Your task to perform on an android device: empty trash in the gmail app Image 0: 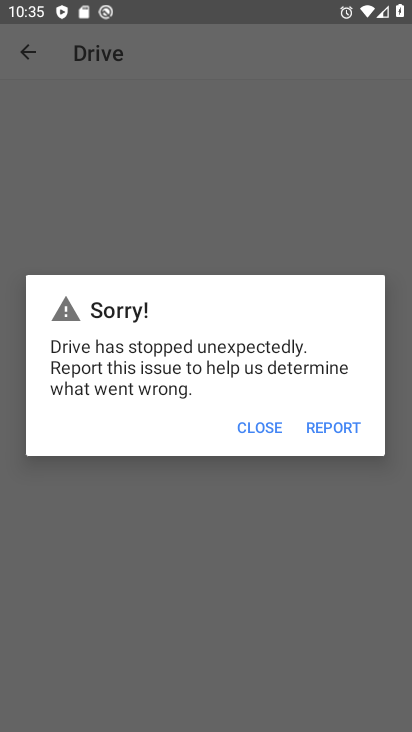
Step 0: press home button
Your task to perform on an android device: empty trash in the gmail app Image 1: 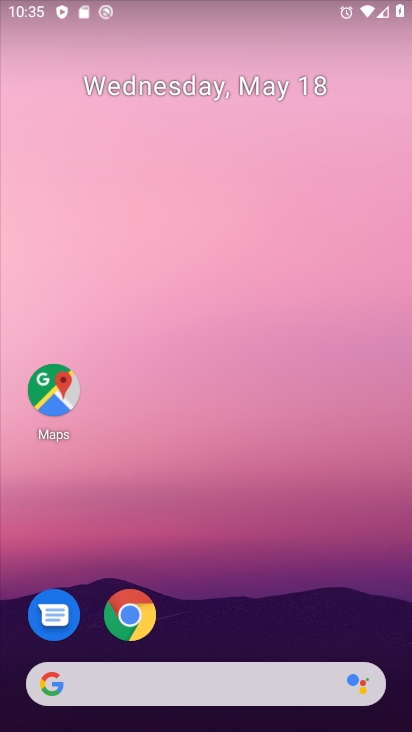
Step 1: drag from (239, 649) to (306, 176)
Your task to perform on an android device: empty trash in the gmail app Image 2: 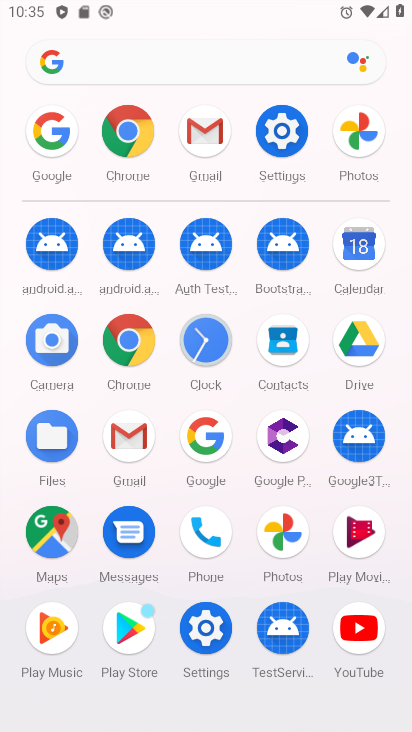
Step 2: click (205, 138)
Your task to perform on an android device: empty trash in the gmail app Image 3: 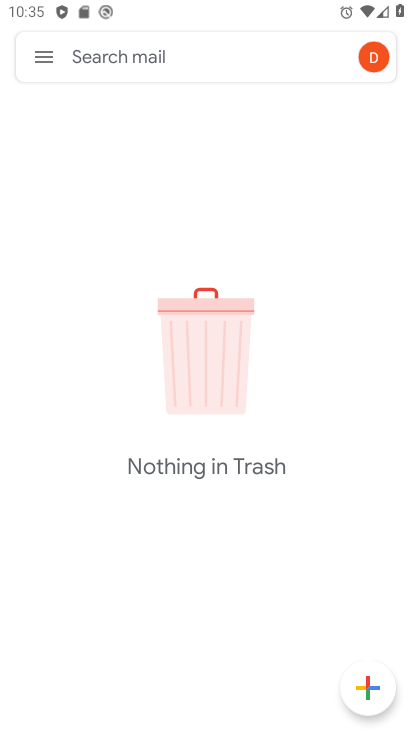
Step 3: click (47, 59)
Your task to perform on an android device: empty trash in the gmail app Image 4: 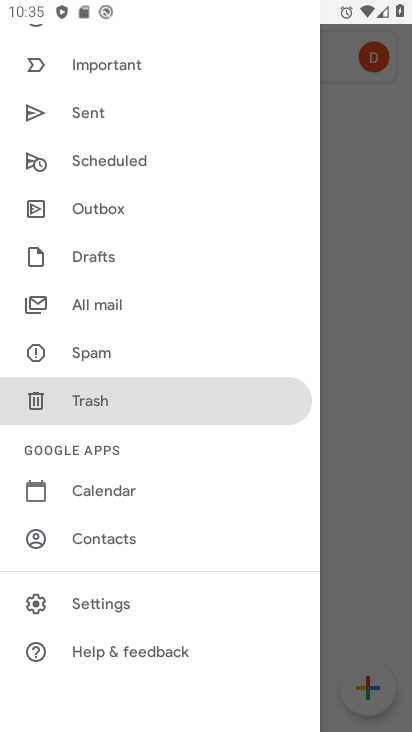
Step 4: click (144, 398)
Your task to perform on an android device: empty trash in the gmail app Image 5: 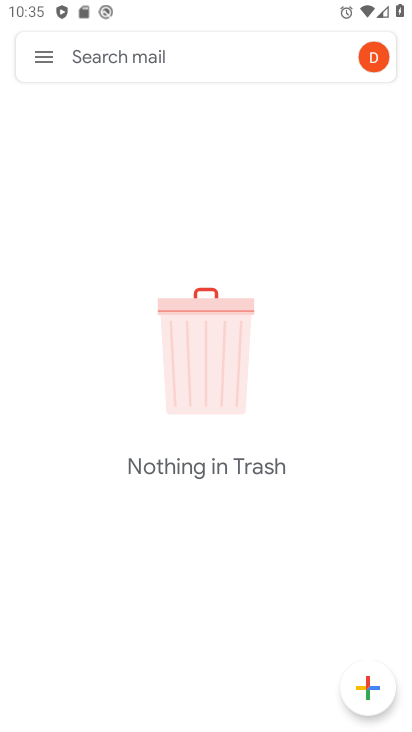
Step 5: task complete